Your task to perform on an android device: install app "Booking.com: Hotels and more" Image 0: 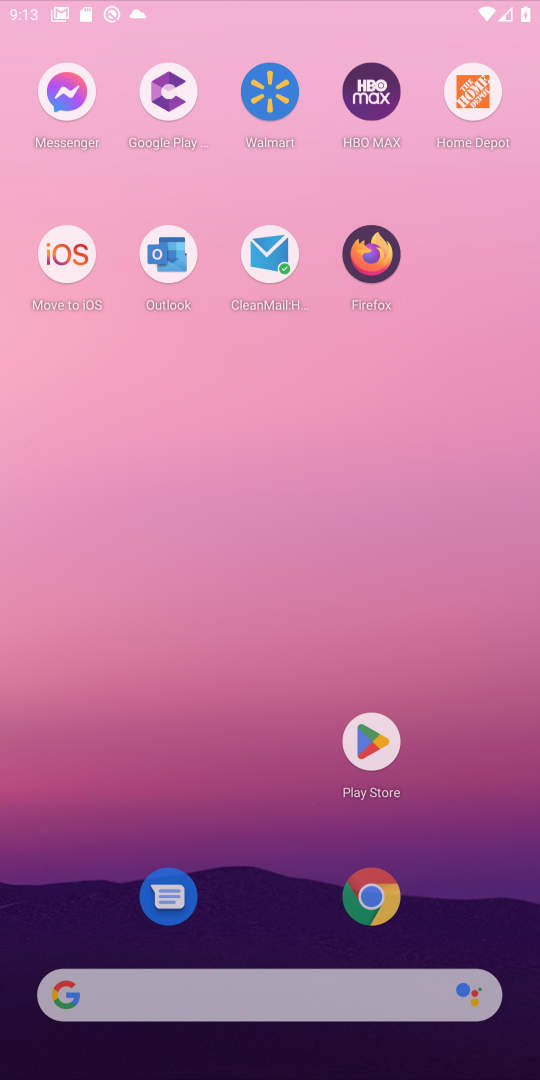
Step 0: press back button
Your task to perform on an android device: install app "Booking.com: Hotels and more" Image 1: 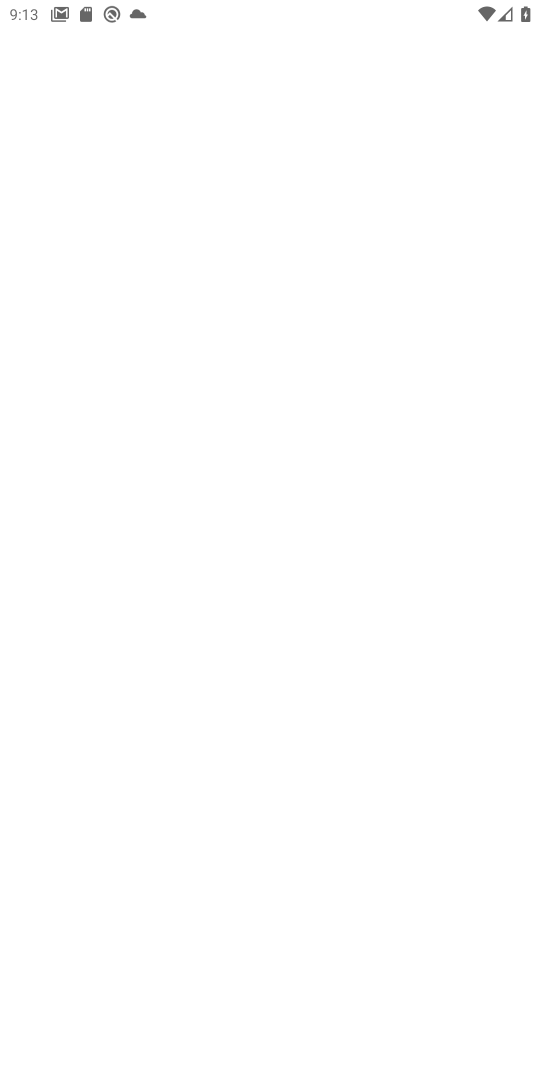
Step 1: press back button
Your task to perform on an android device: install app "Booking.com: Hotels and more" Image 2: 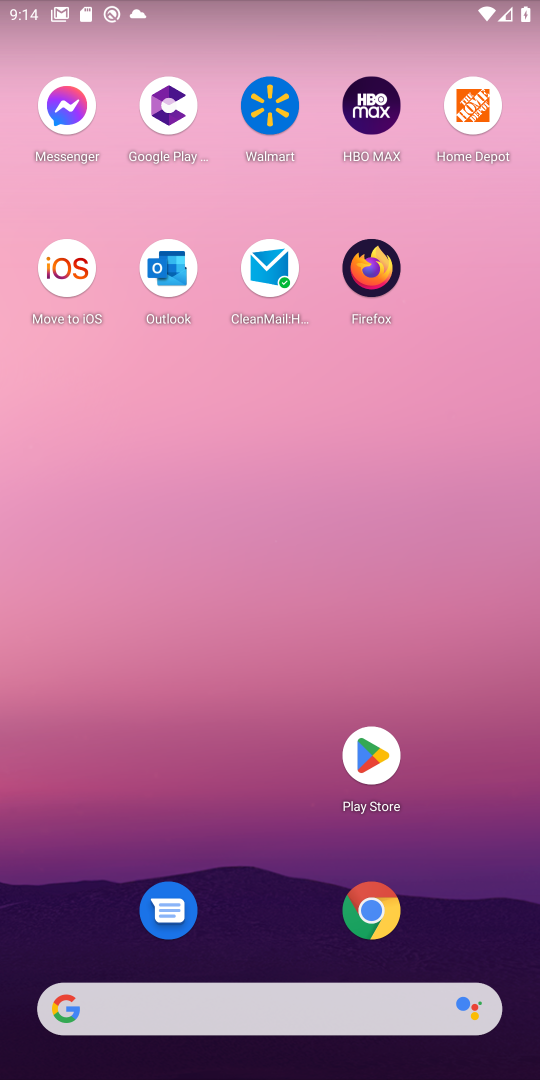
Step 2: drag from (295, 832) to (266, 199)
Your task to perform on an android device: install app "Booking.com: Hotels and more" Image 3: 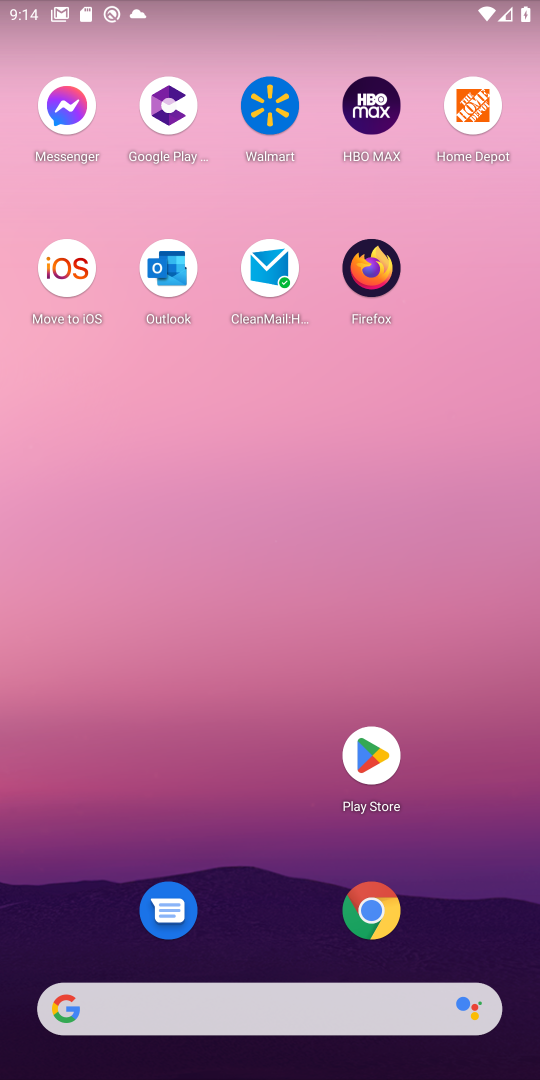
Step 3: drag from (369, 345) to (409, 194)
Your task to perform on an android device: install app "Booking.com: Hotels and more" Image 4: 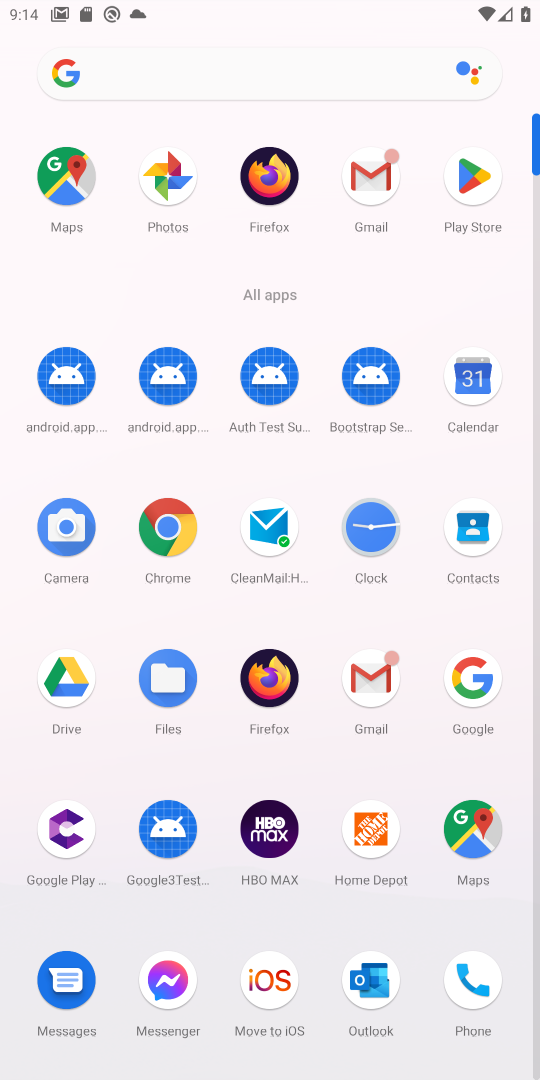
Step 4: drag from (249, 814) to (183, 264)
Your task to perform on an android device: install app "Booking.com: Hotels and more" Image 5: 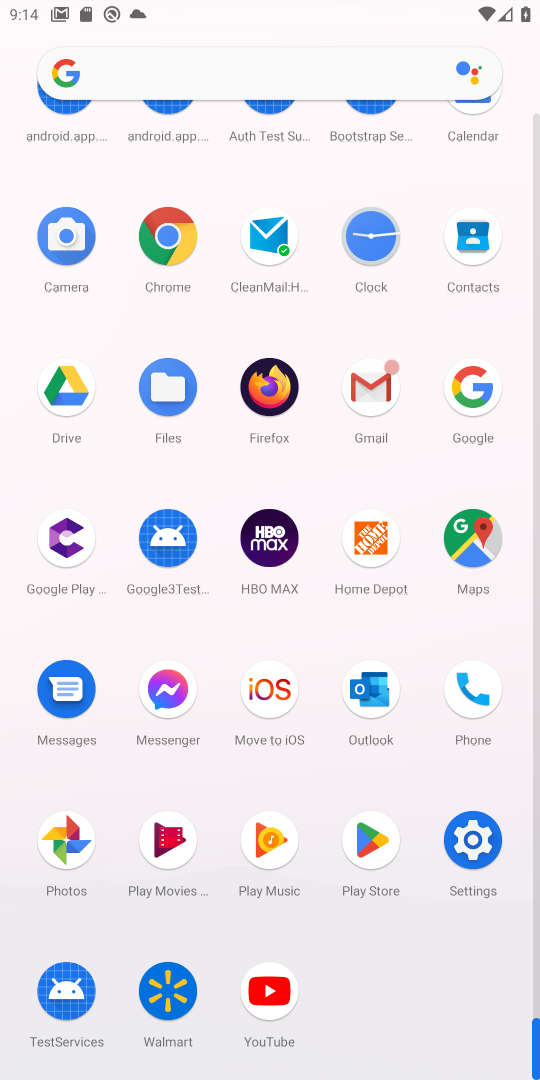
Step 5: drag from (382, 792) to (360, 835)
Your task to perform on an android device: install app "Booking.com: Hotels and more" Image 6: 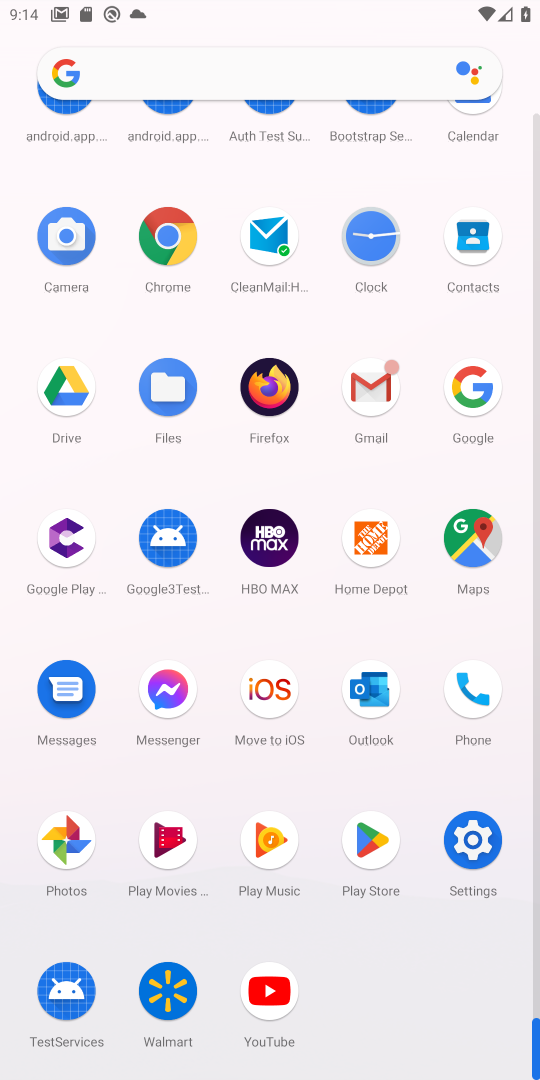
Step 6: click (356, 841)
Your task to perform on an android device: install app "Booking.com: Hotels and more" Image 7: 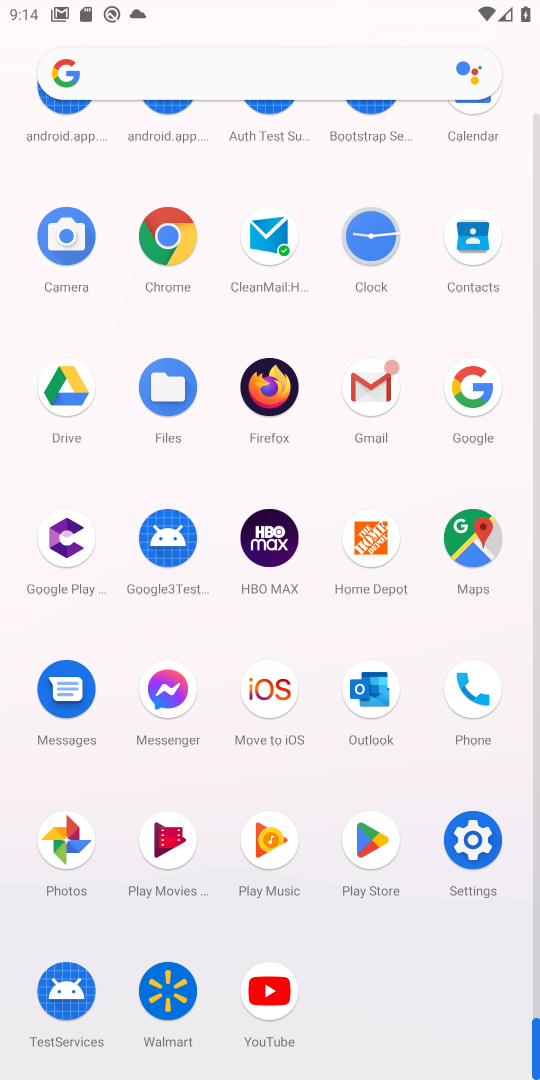
Step 7: click (356, 841)
Your task to perform on an android device: install app "Booking.com: Hotels and more" Image 8: 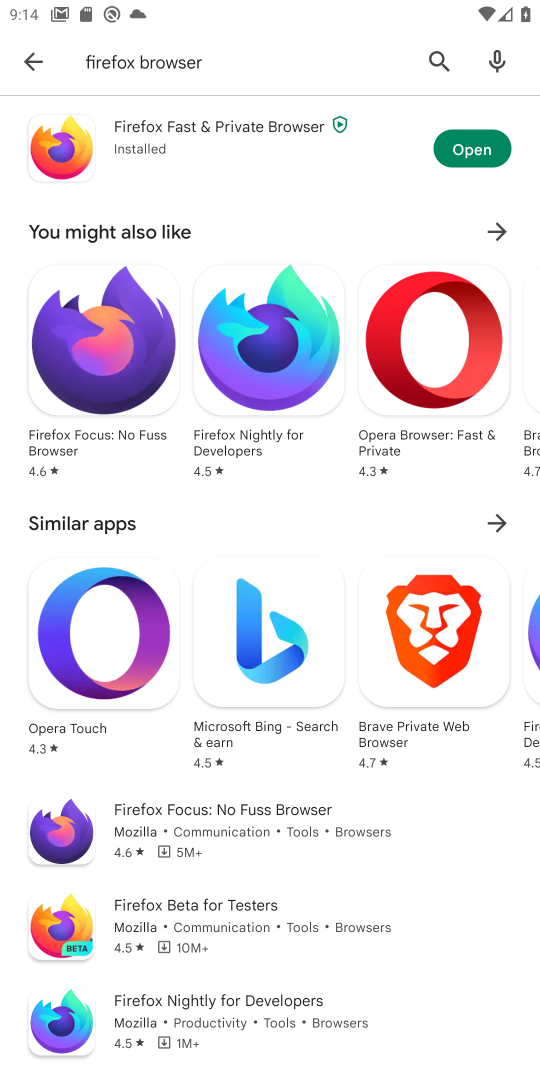
Step 8: press back button
Your task to perform on an android device: install app "Booking.com: Hotels and more" Image 9: 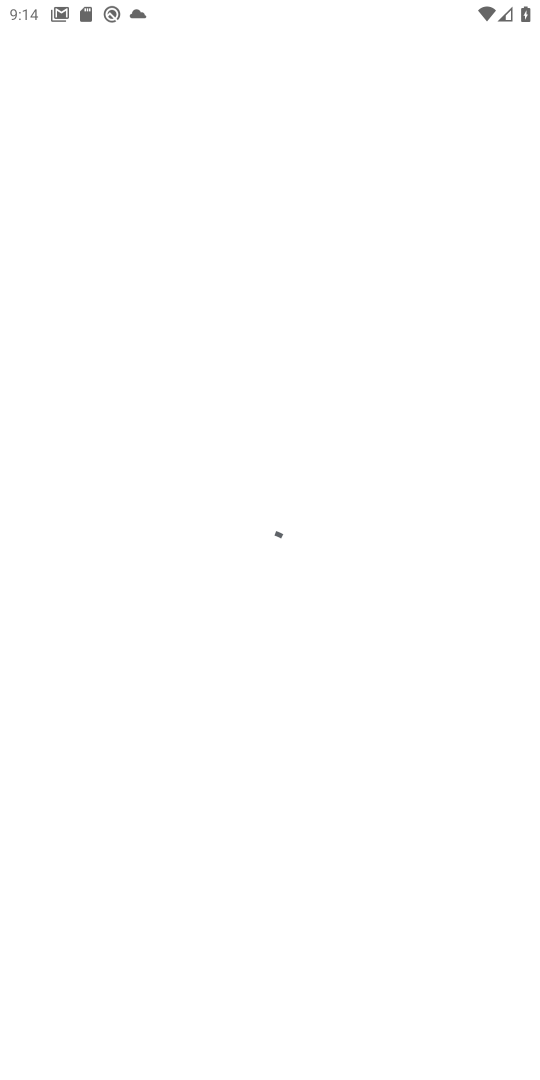
Step 9: press back button
Your task to perform on an android device: install app "Booking.com: Hotels and more" Image 10: 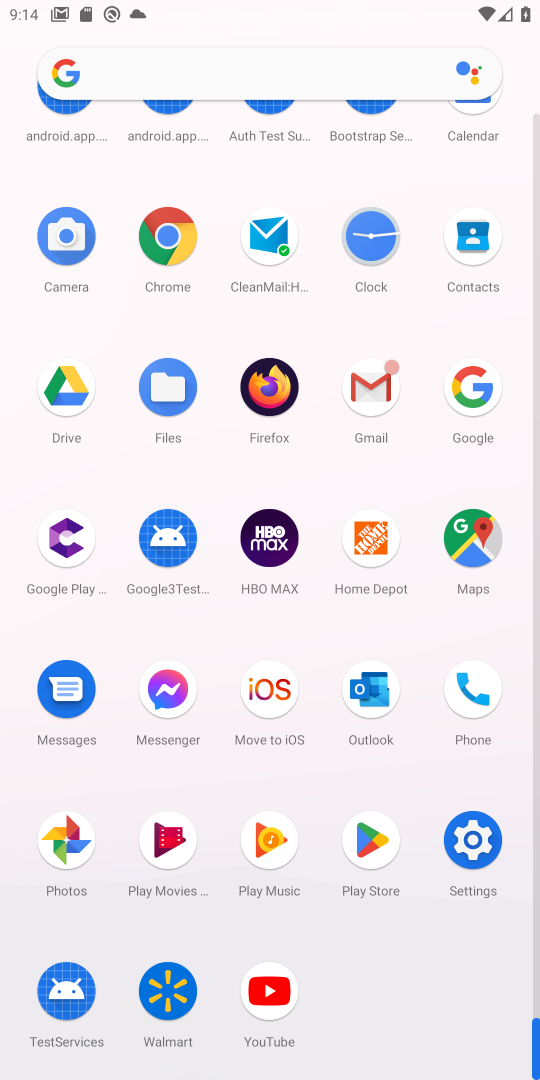
Step 10: click (374, 845)
Your task to perform on an android device: install app "Booking.com: Hotels and more" Image 11: 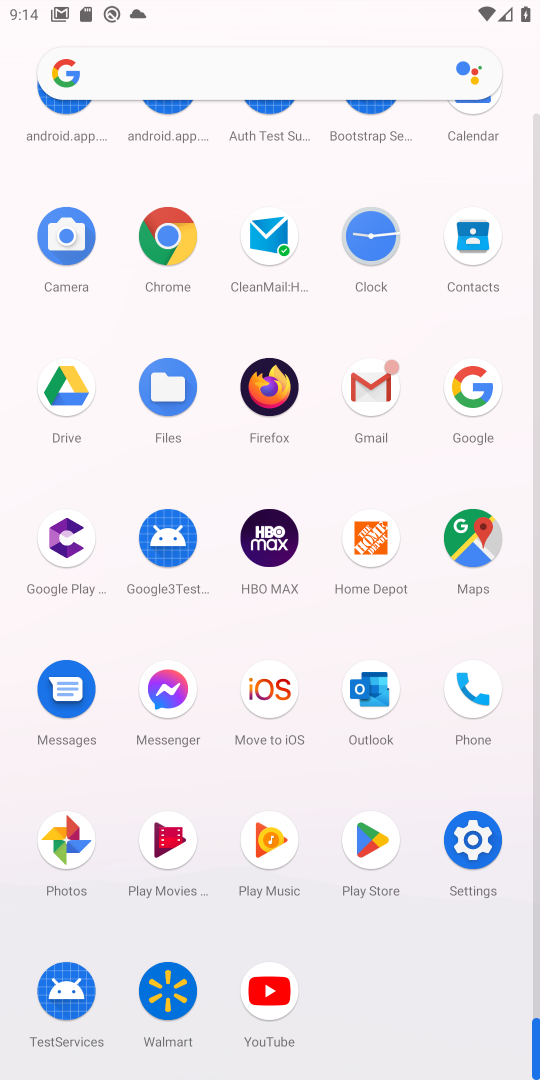
Step 11: click (376, 841)
Your task to perform on an android device: install app "Booking.com: Hotels and more" Image 12: 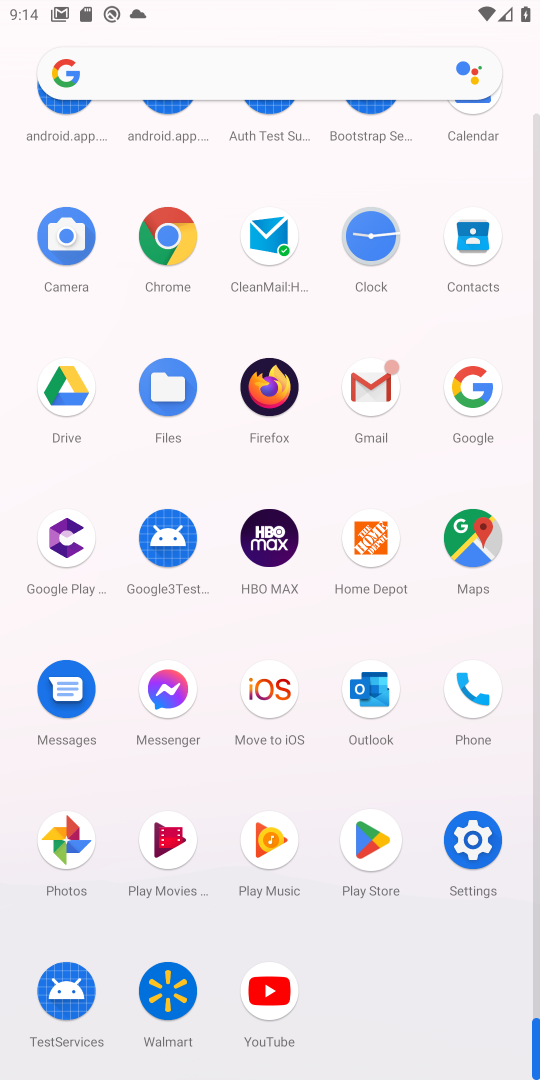
Step 12: click (377, 840)
Your task to perform on an android device: install app "Booking.com: Hotels and more" Image 13: 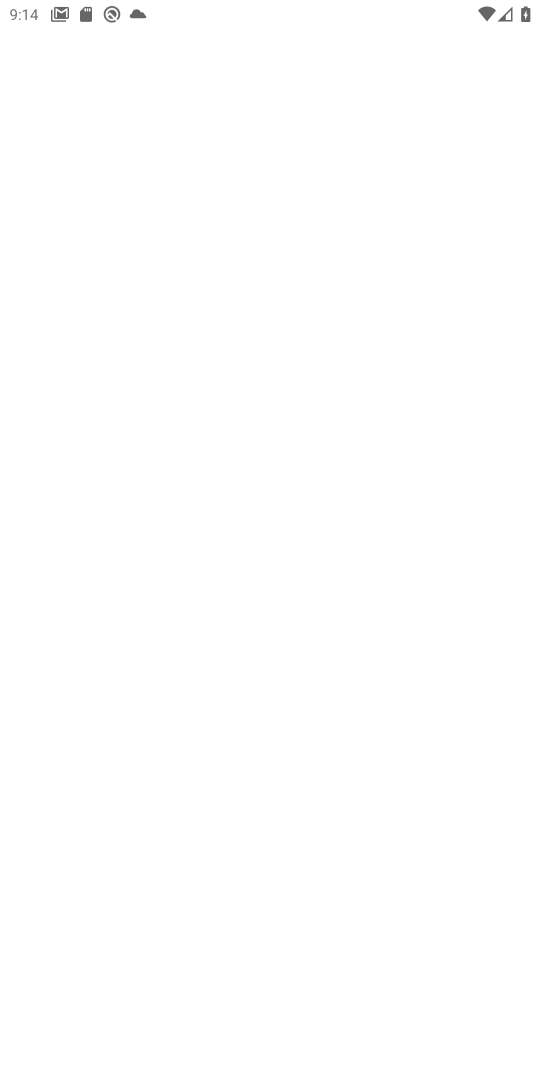
Step 13: click (373, 837)
Your task to perform on an android device: install app "Booking.com: Hotels and more" Image 14: 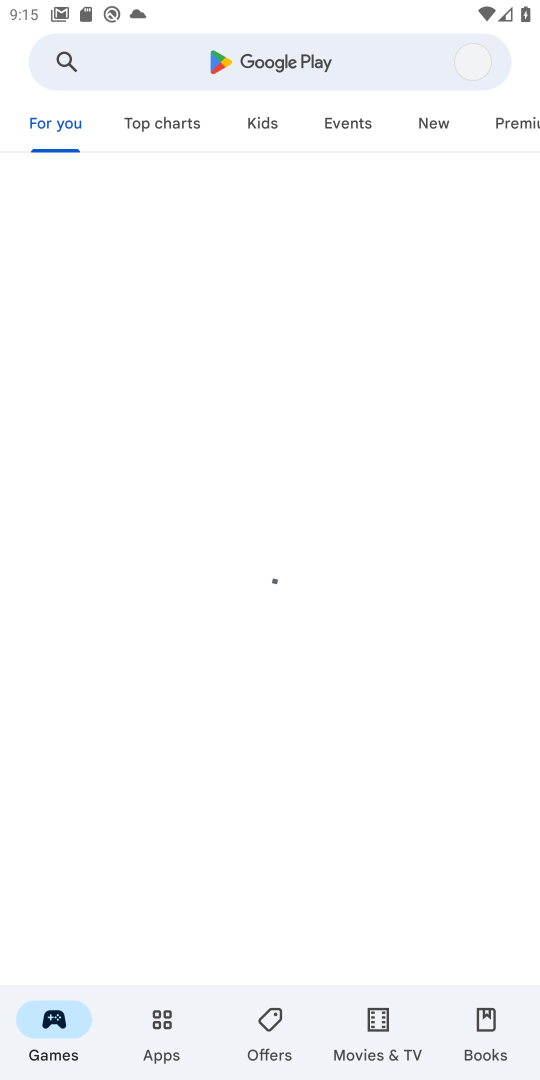
Step 14: click (373, 837)
Your task to perform on an android device: install app "Booking.com: Hotels and more" Image 15: 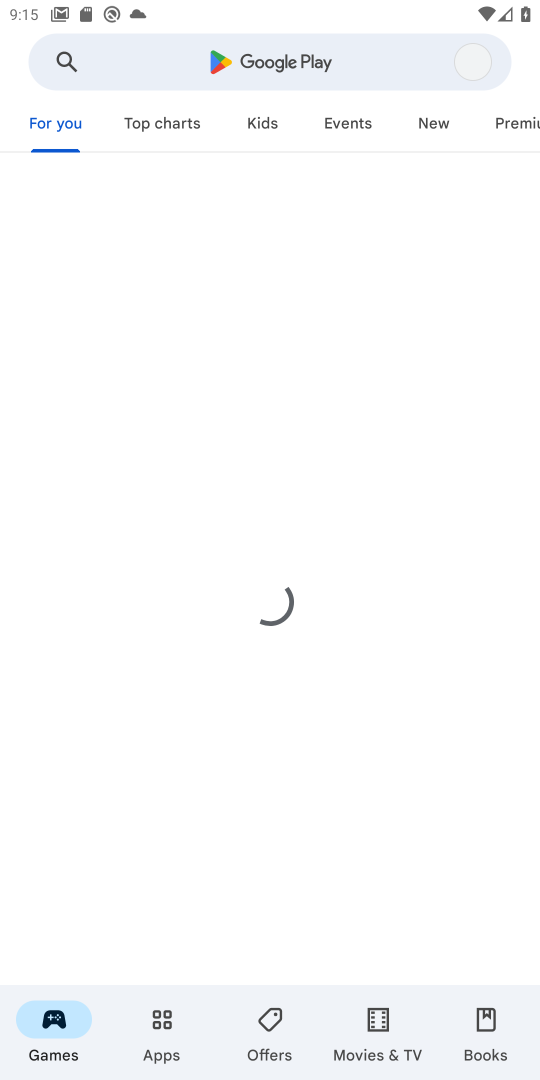
Step 15: click (373, 837)
Your task to perform on an android device: install app "Booking.com: Hotels and more" Image 16: 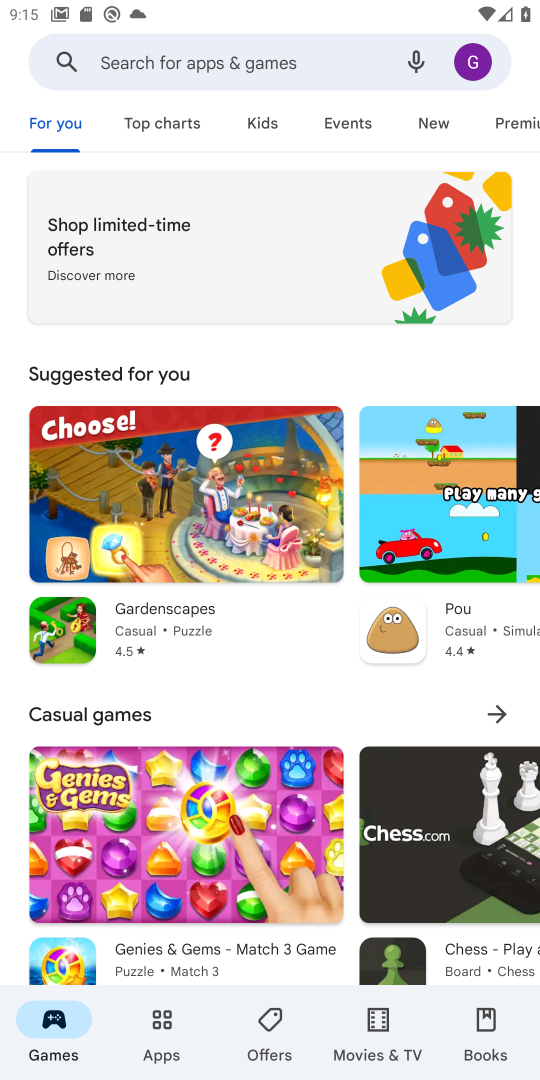
Step 16: click (112, 76)
Your task to perform on an android device: install app "Booking.com: Hotels and more" Image 17: 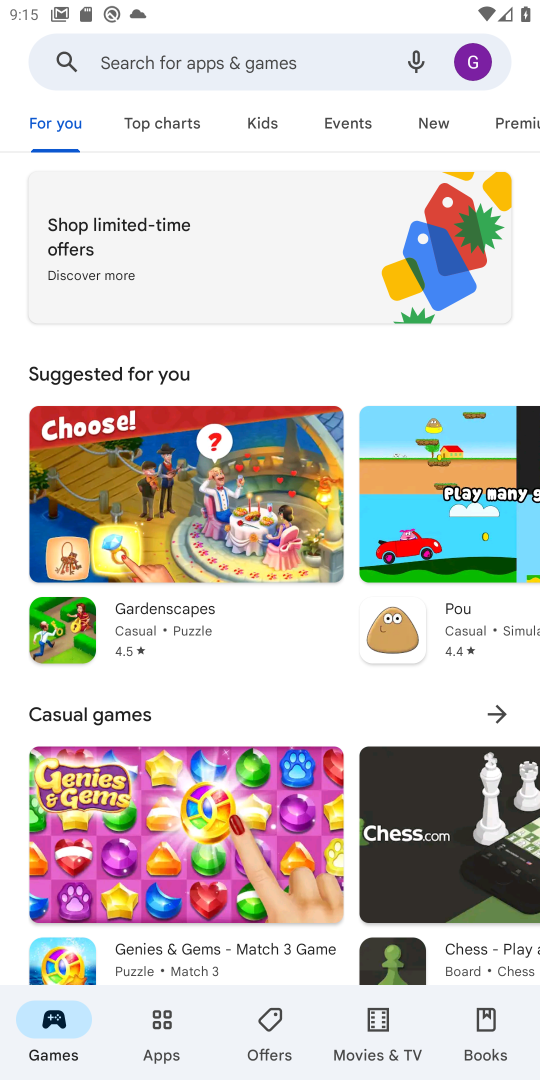
Step 17: click (112, 76)
Your task to perform on an android device: install app "Booking.com: Hotels and more" Image 18: 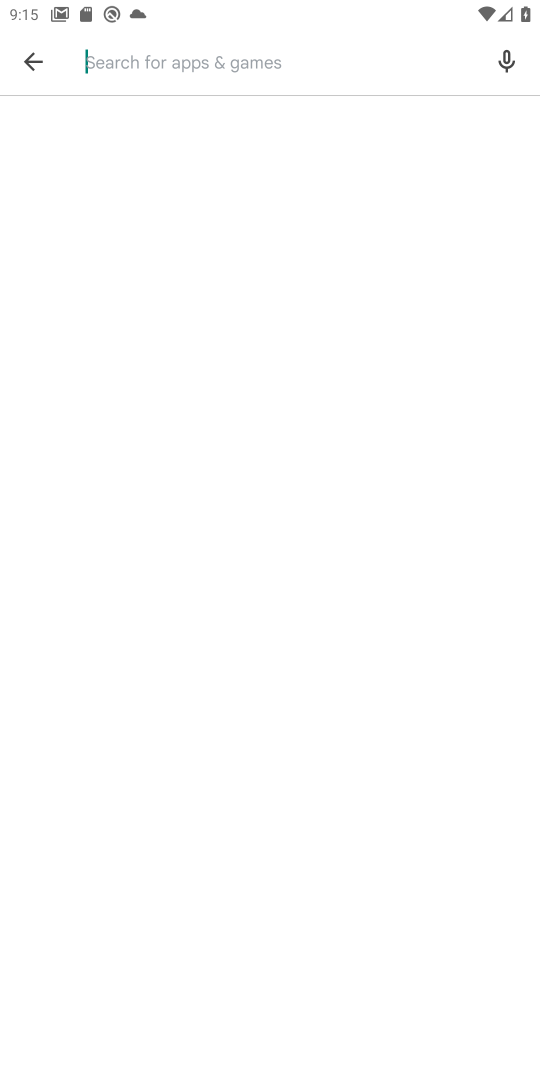
Step 18: click (113, 75)
Your task to perform on an android device: install app "Booking.com: Hotels and more" Image 19: 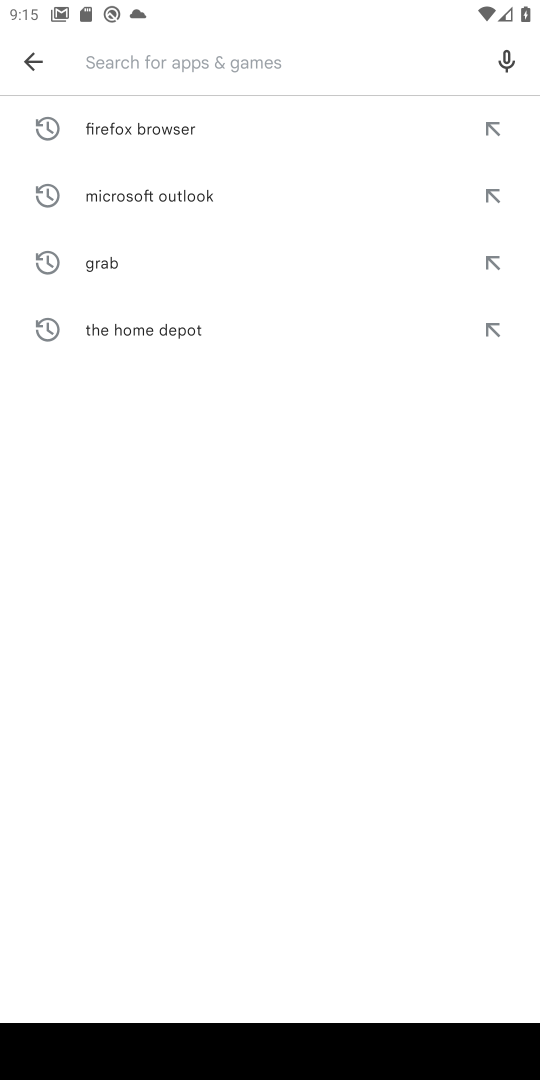
Step 19: type "Booking .com : Hotels and more"
Your task to perform on an android device: install app "Booking.com: Hotels and more" Image 20: 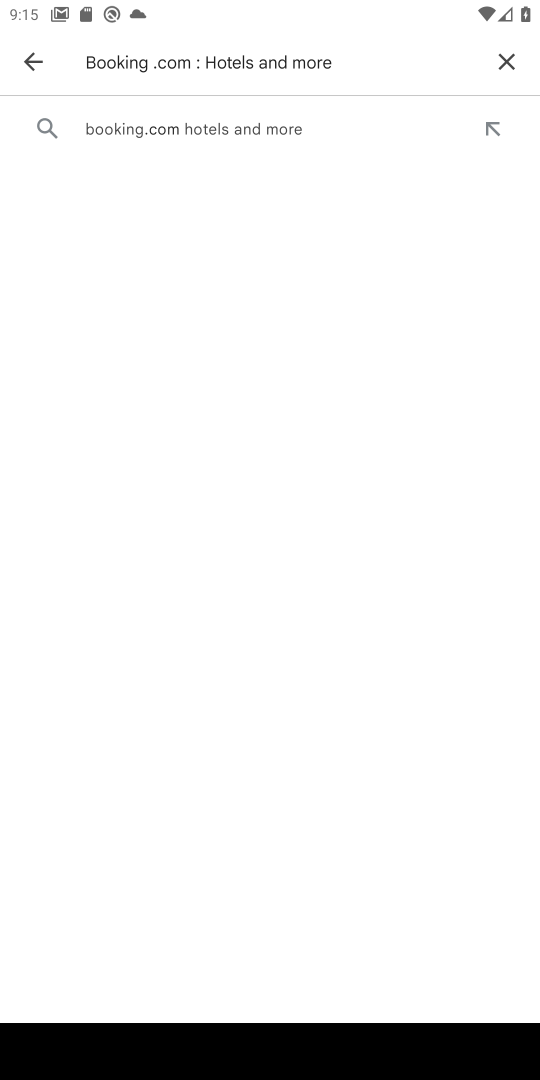
Step 20: click (171, 138)
Your task to perform on an android device: install app "Booking.com: Hotels and more" Image 21: 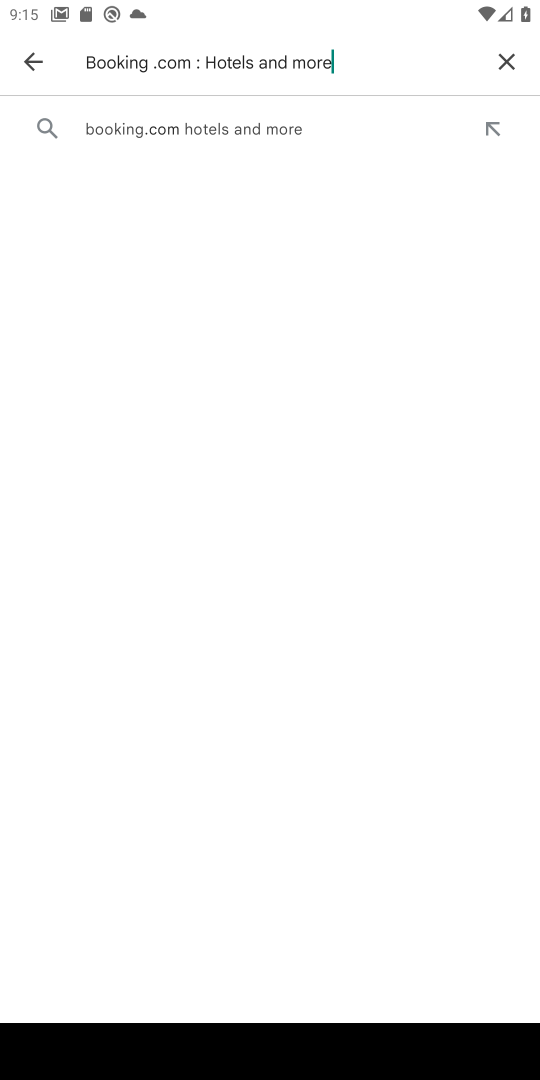
Step 21: click (174, 138)
Your task to perform on an android device: install app "Booking.com: Hotels and more" Image 22: 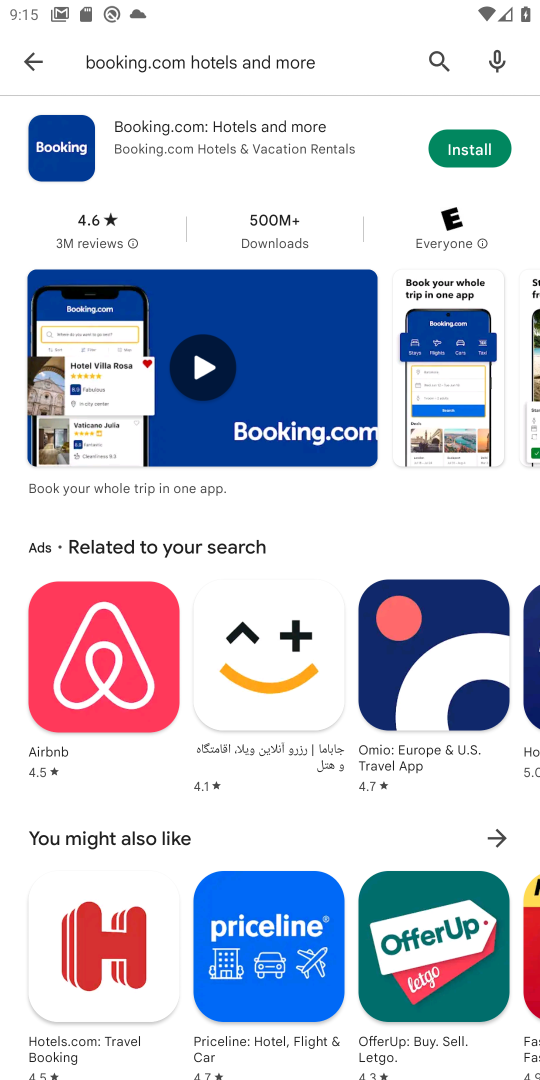
Step 22: click (458, 148)
Your task to perform on an android device: install app "Booking.com: Hotels and more" Image 23: 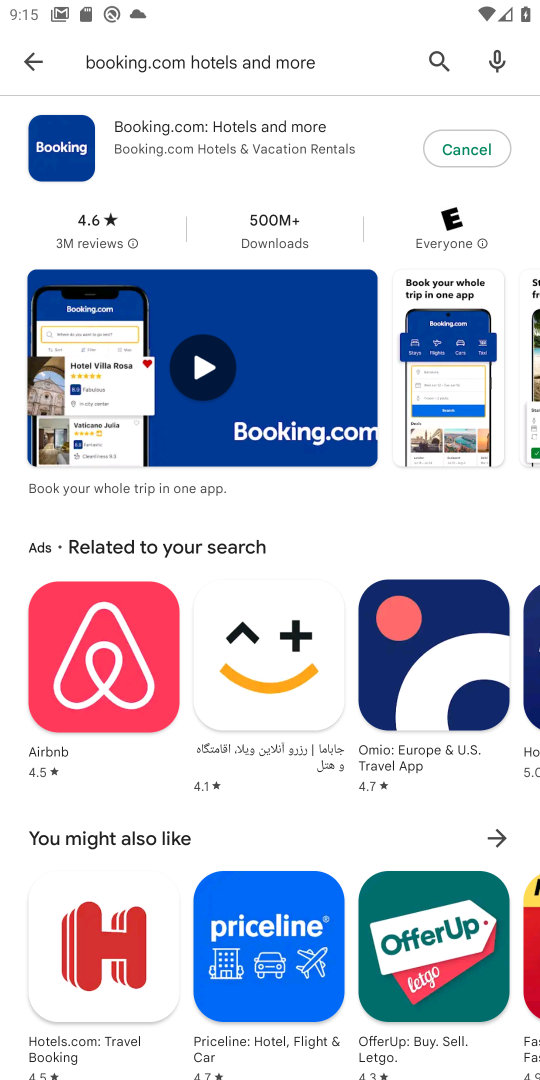
Step 23: click (458, 148)
Your task to perform on an android device: install app "Booking.com: Hotels and more" Image 24: 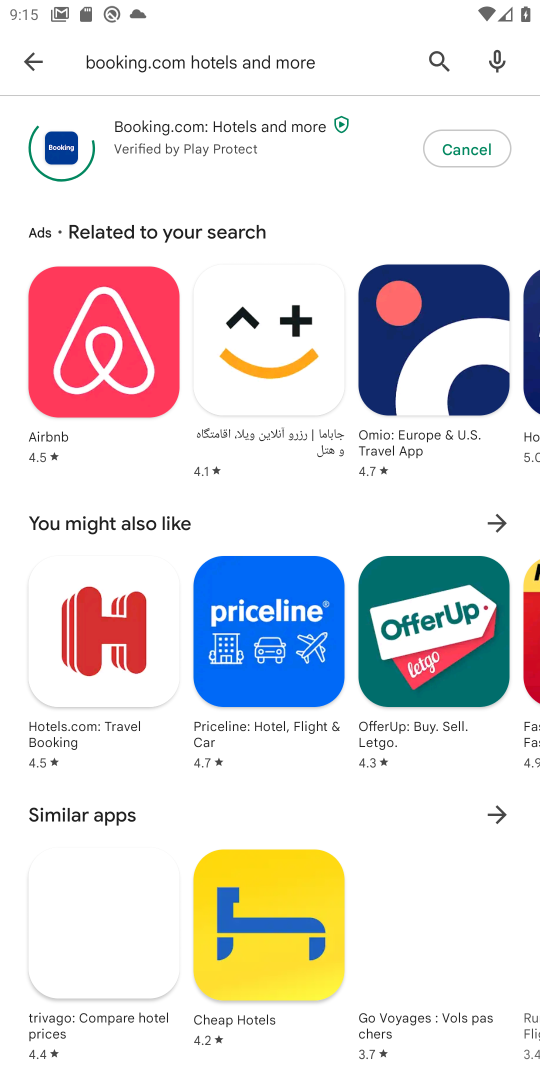
Step 24: click (458, 148)
Your task to perform on an android device: install app "Booking.com: Hotels and more" Image 25: 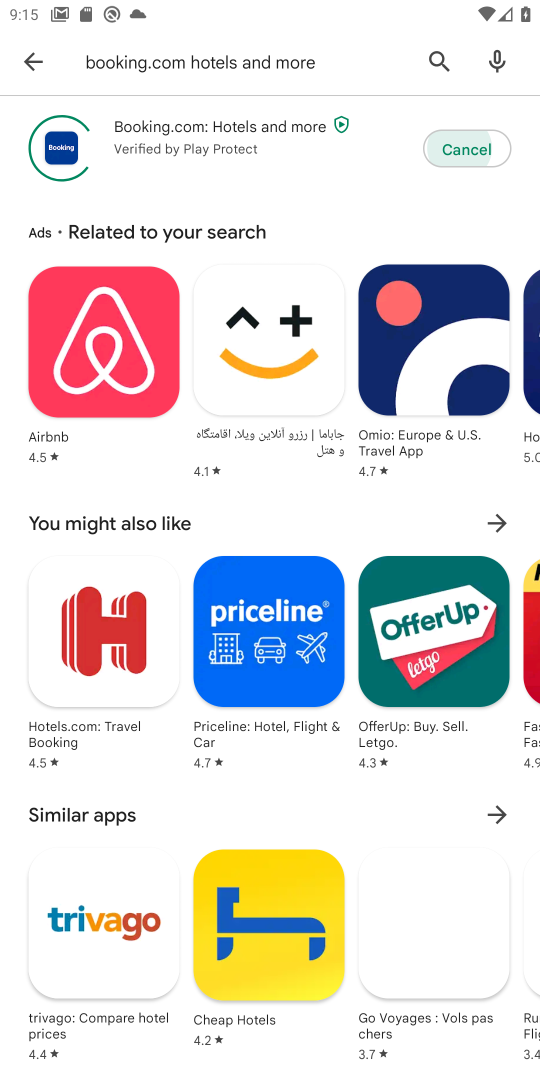
Step 25: click (459, 146)
Your task to perform on an android device: install app "Booking.com: Hotels and more" Image 26: 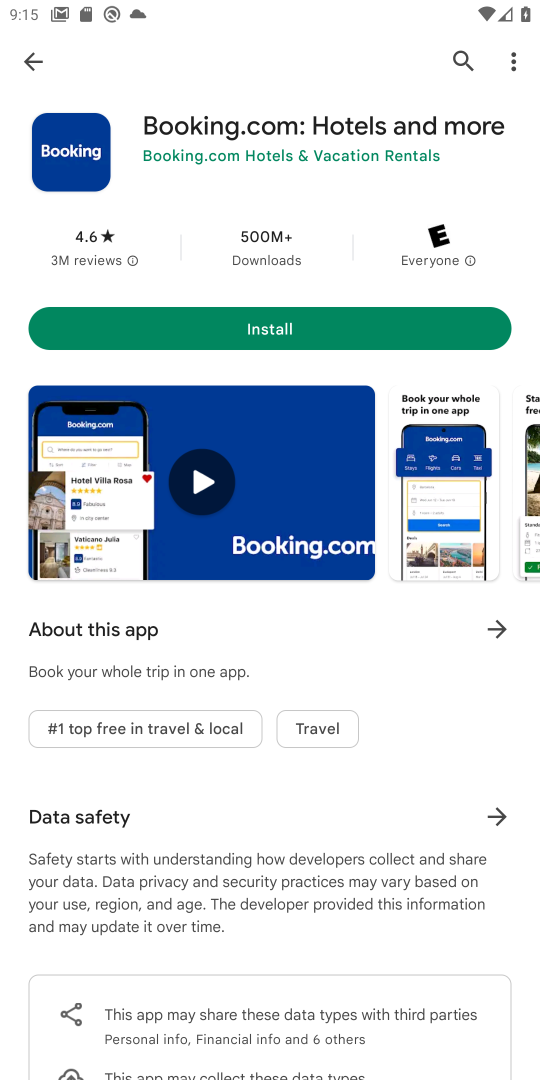
Step 26: click (358, 318)
Your task to perform on an android device: install app "Booking.com: Hotels and more" Image 27: 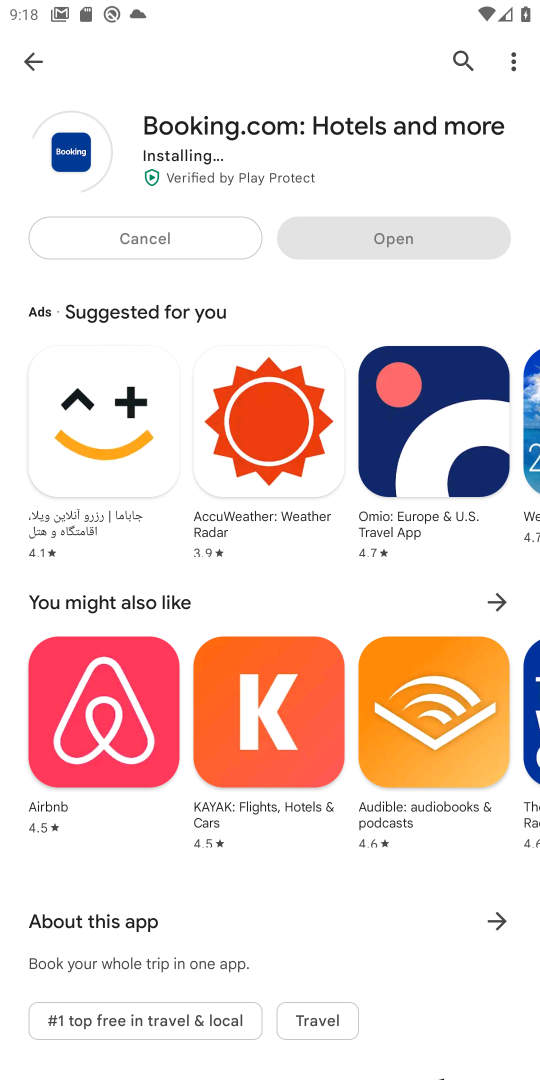
Step 27: click (379, 247)
Your task to perform on an android device: install app "Booking.com: Hotels and more" Image 28: 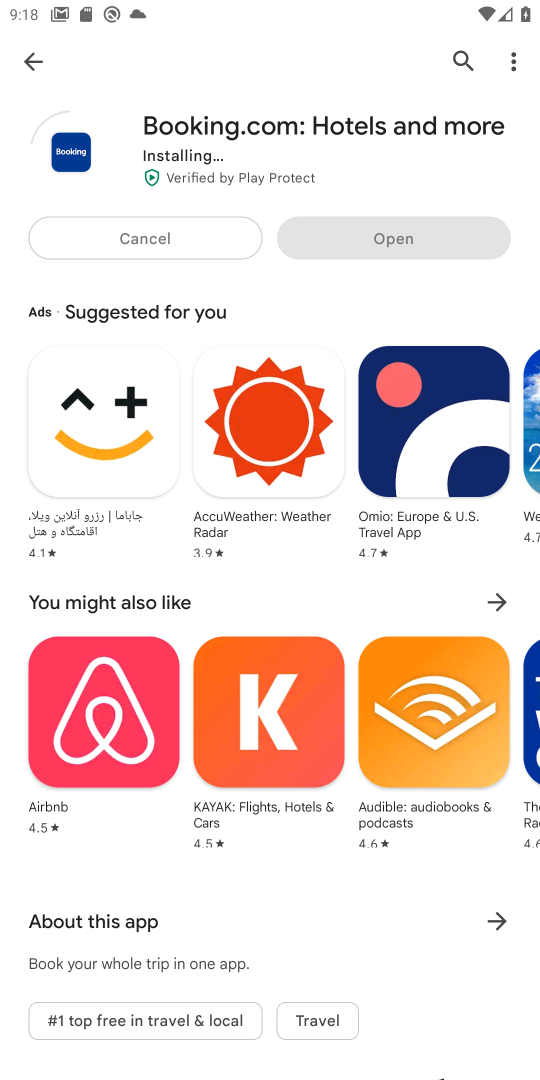
Step 28: click (380, 244)
Your task to perform on an android device: install app "Booking.com: Hotels and more" Image 29: 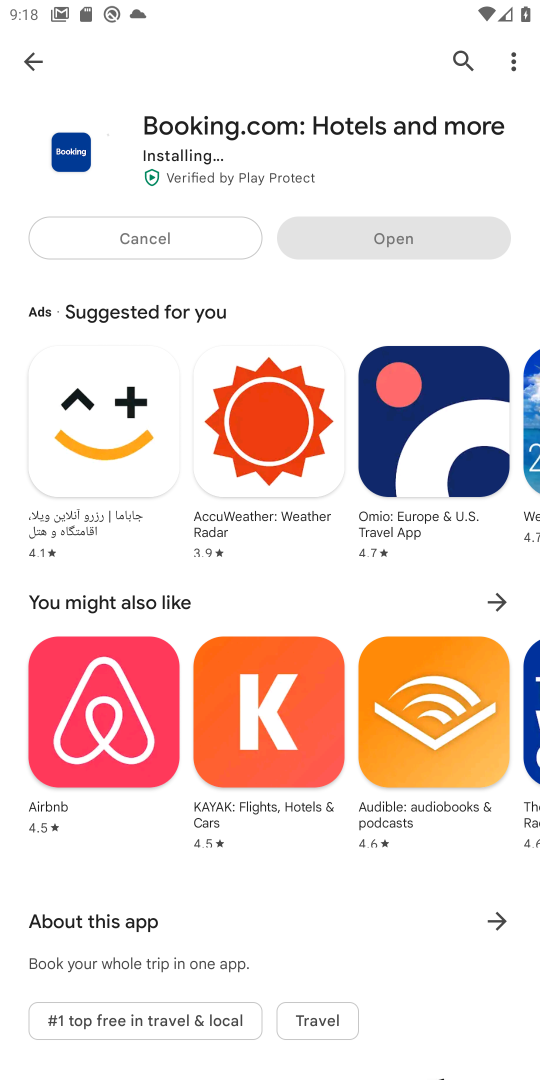
Step 29: click (383, 241)
Your task to perform on an android device: install app "Booking.com: Hotels and more" Image 30: 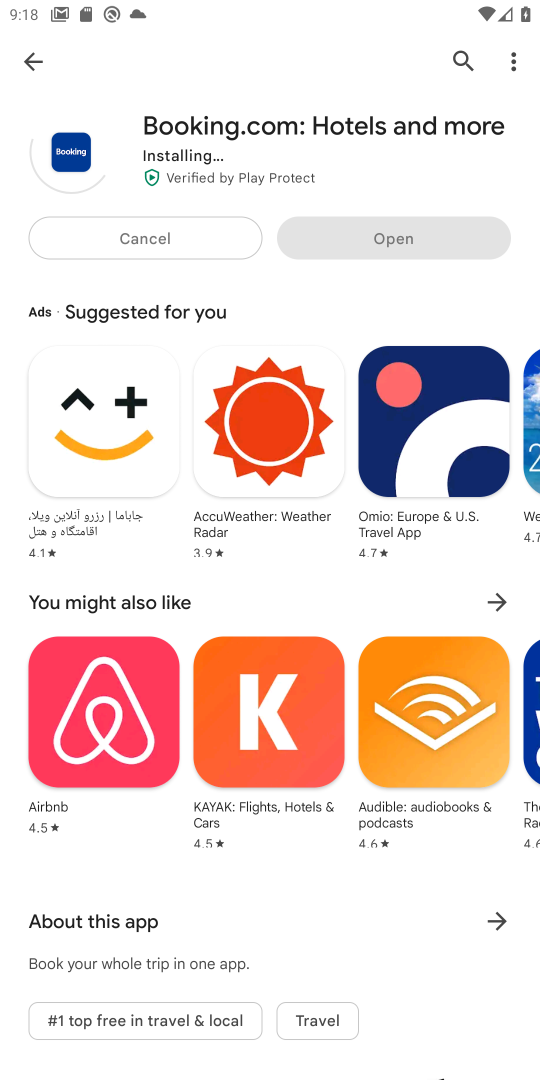
Step 30: click (383, 241)
Your task to perform on an android device: install app "Booking.com: Hotels and more" Image 31: 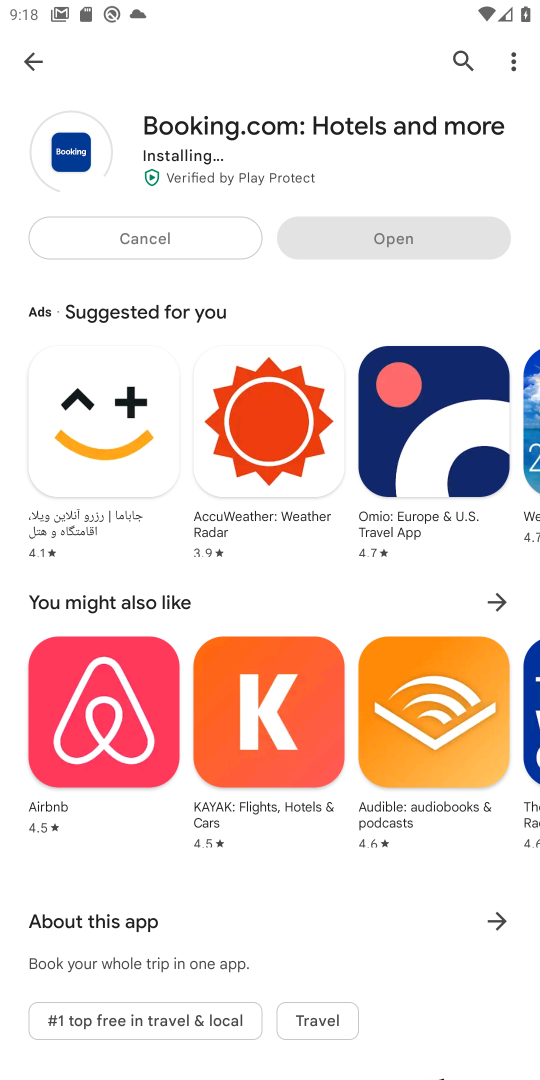
Step 31: click (388, 240)
Your task to perform on an android device: install app "Booking.com: Hotels and more" Image 32: 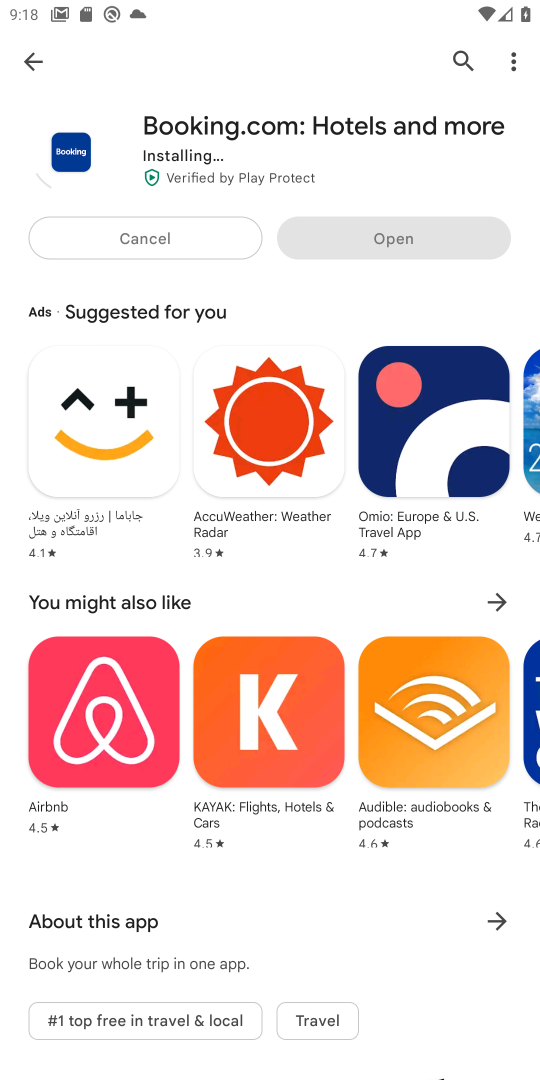
Step 32: click (398, 240)
Your task to perform on an android device: install app "Booking.com: Hotels and more" Image 33: 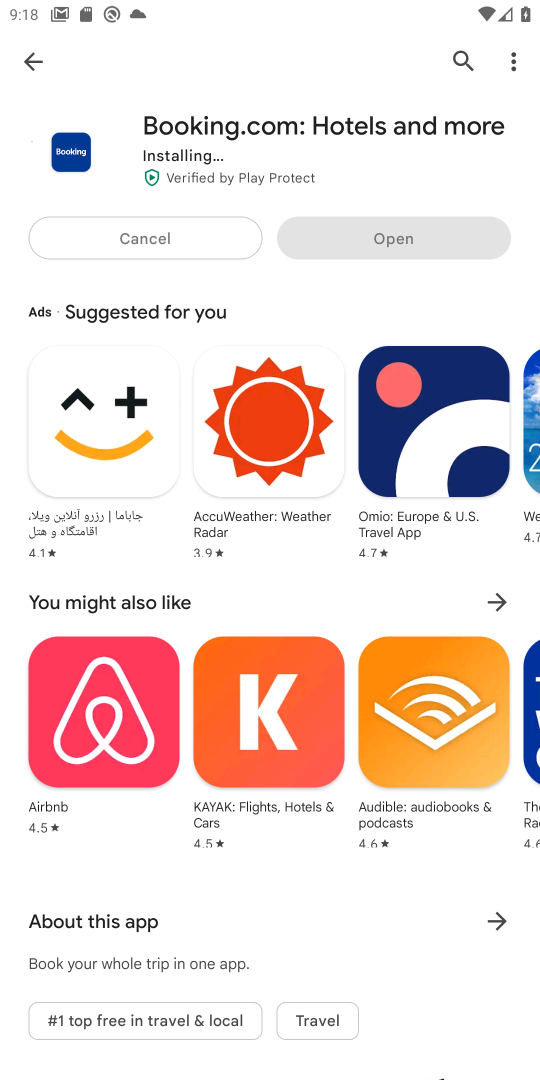
Step 33: click (420, 254)
Your task to perform on an android device: install app "Booking.com: Hotels and more" Image 34: 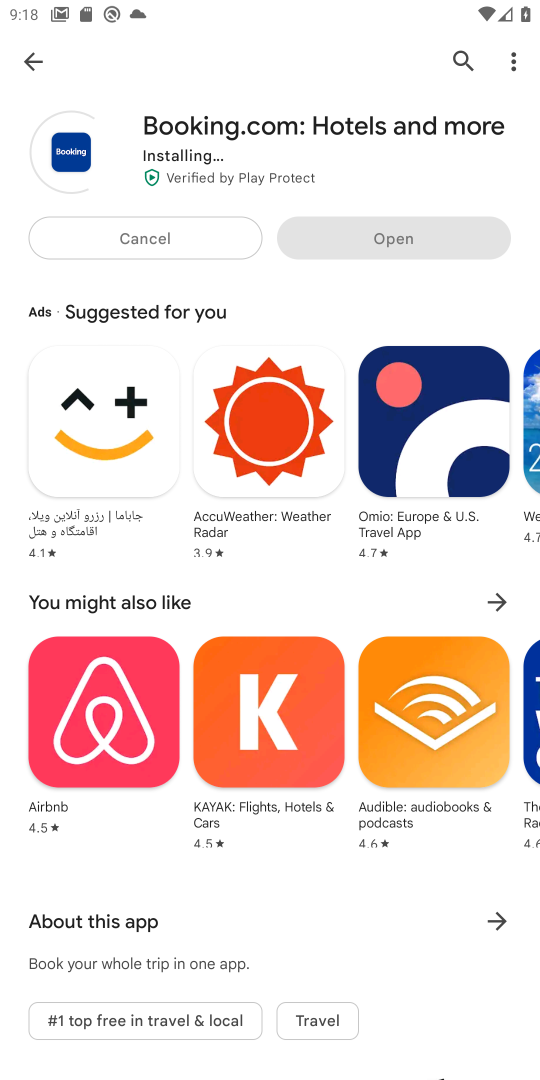
Step 34: click (415, 231)
Your task to perform on an android device: install app "Booking.com: Hotels and more" Image 35: 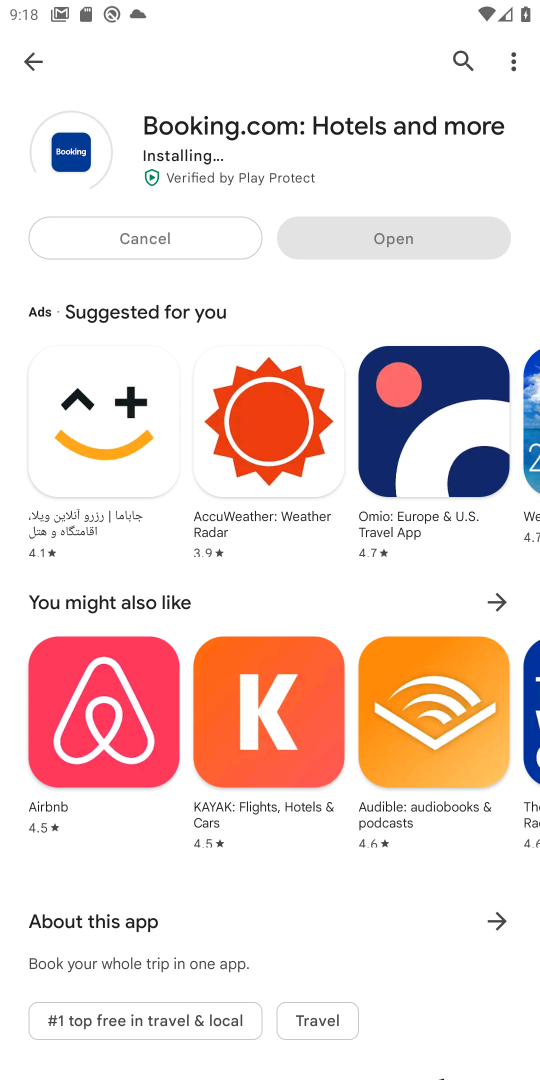
Step 35: click (412, 233)
Your task to perform on an android device: install app "Booking.com: Hotels and more" Image 36: 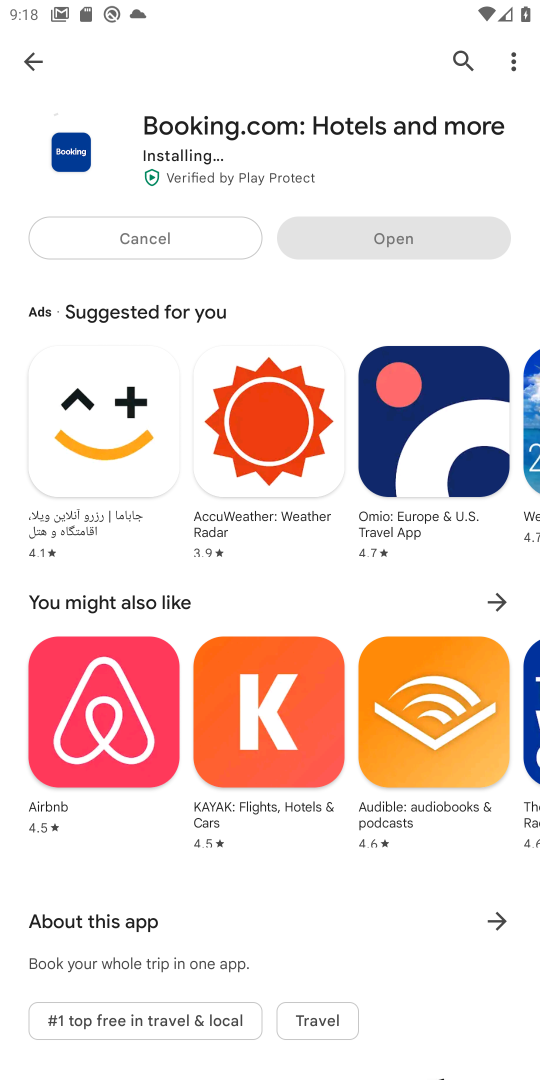
Step 36: click (415, 238)
Your task to perform on an android device: install app "Booking.com: Hotels and more" Image 37: 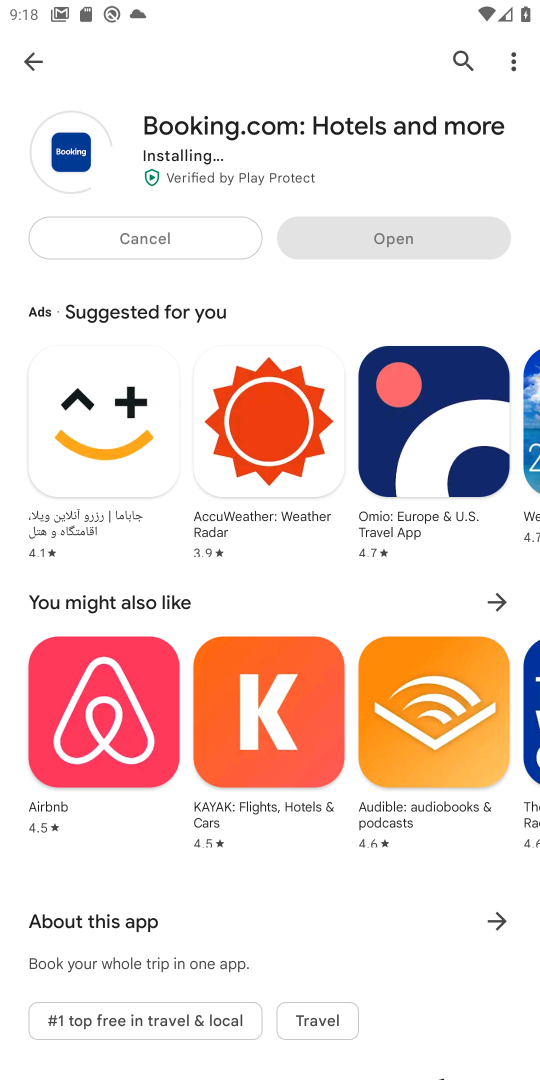
Step 37: click (418, 237)
Your task to perform on an android device: install app "Booking.com: Hotels and more" Image 38: 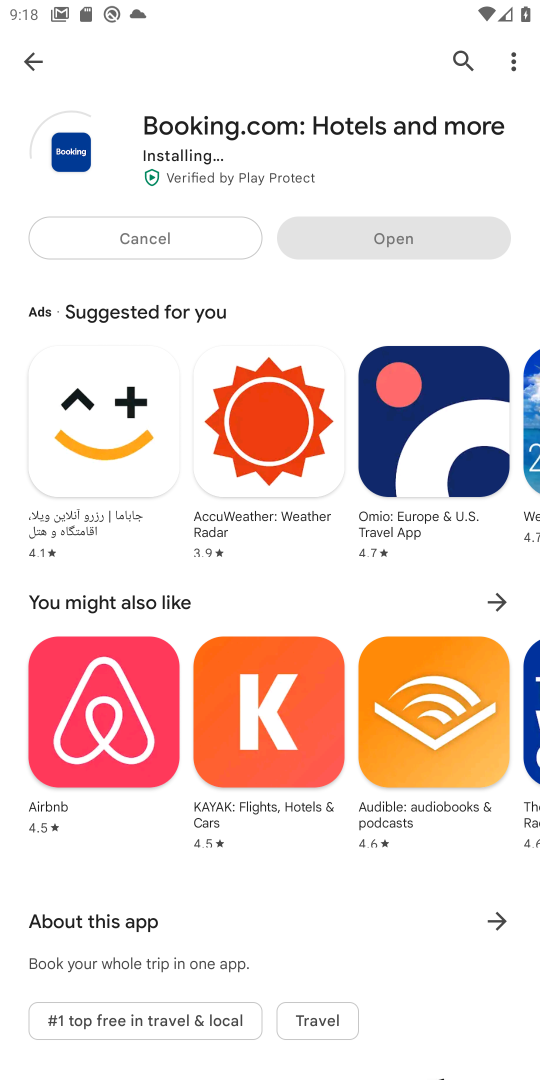
Step 38: click (439, 250)
Your task to perform on an android device: install app "Booking.com: Hotels and more" Image 39: 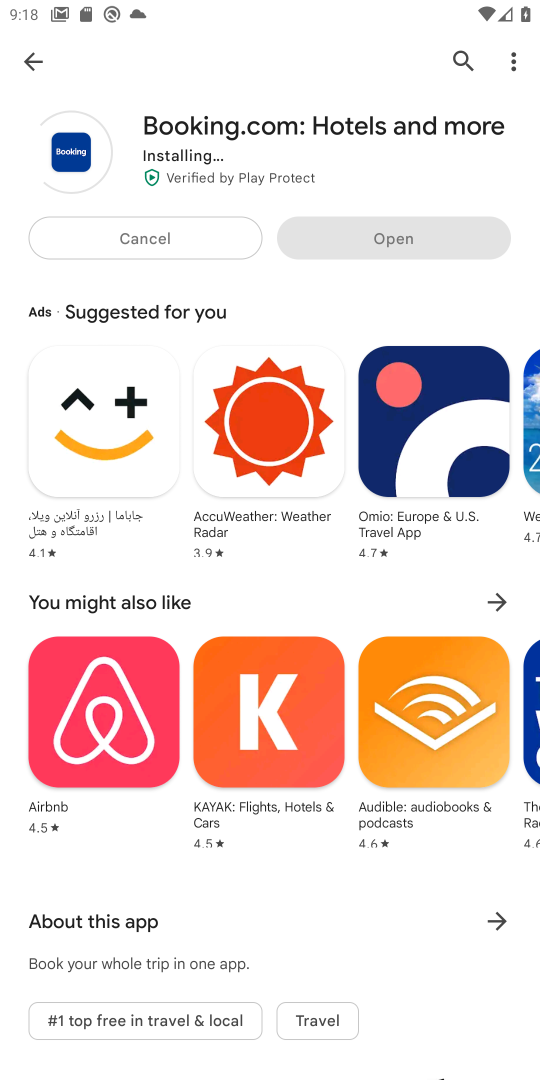
Step 39: click (439, 250)
Your task to perform on an android device: install app "Booking.com: Hotels and more" Image 40: 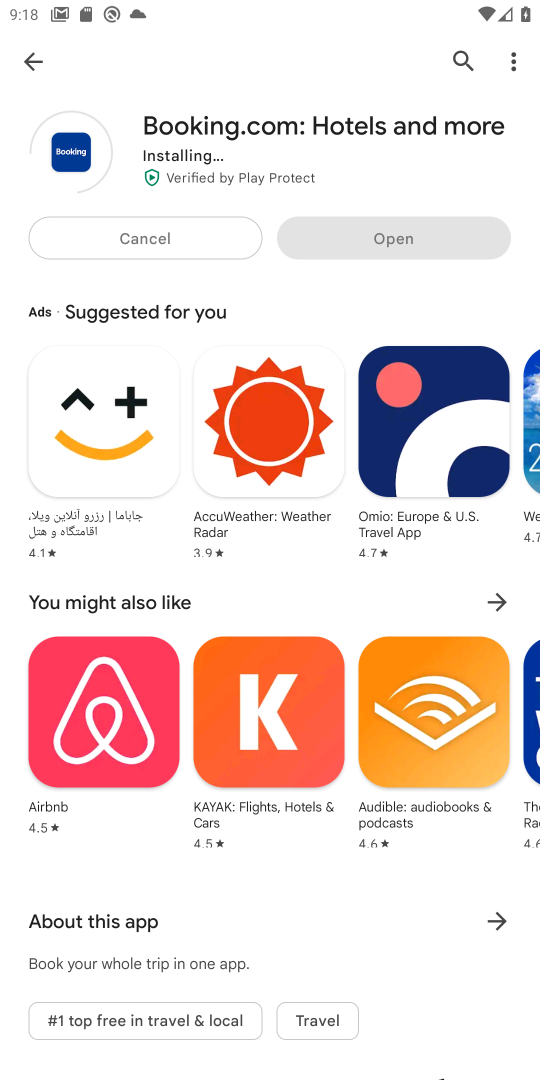
Step 40: click (412, 234)
Your task to perform on an android device: install app "Booking.com: Hotels and more" Image 41: 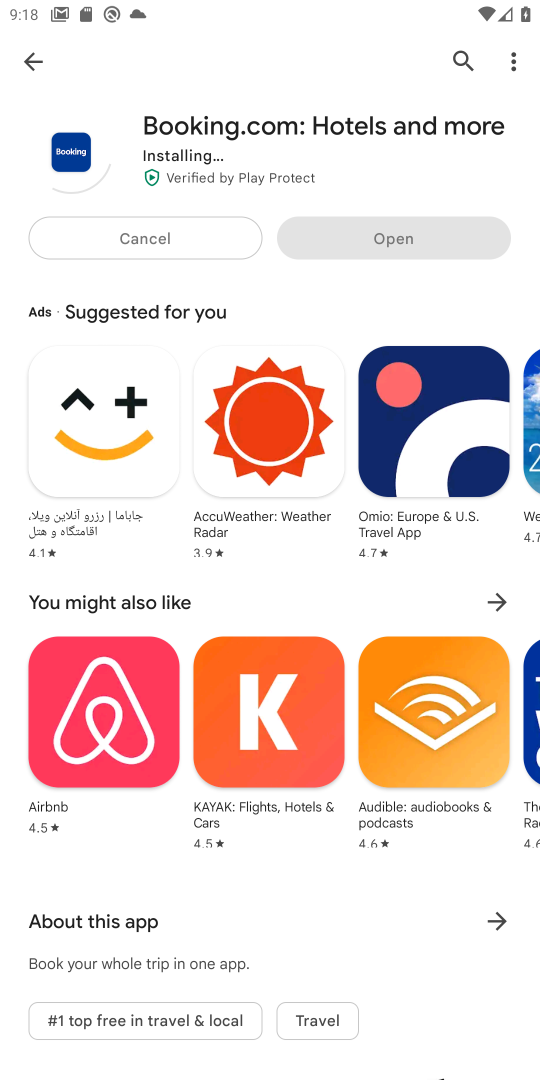
Step 41: click (412, 234)
Your task to perform on an android device: install app "Booking.com: Hotels and more" Image 42: 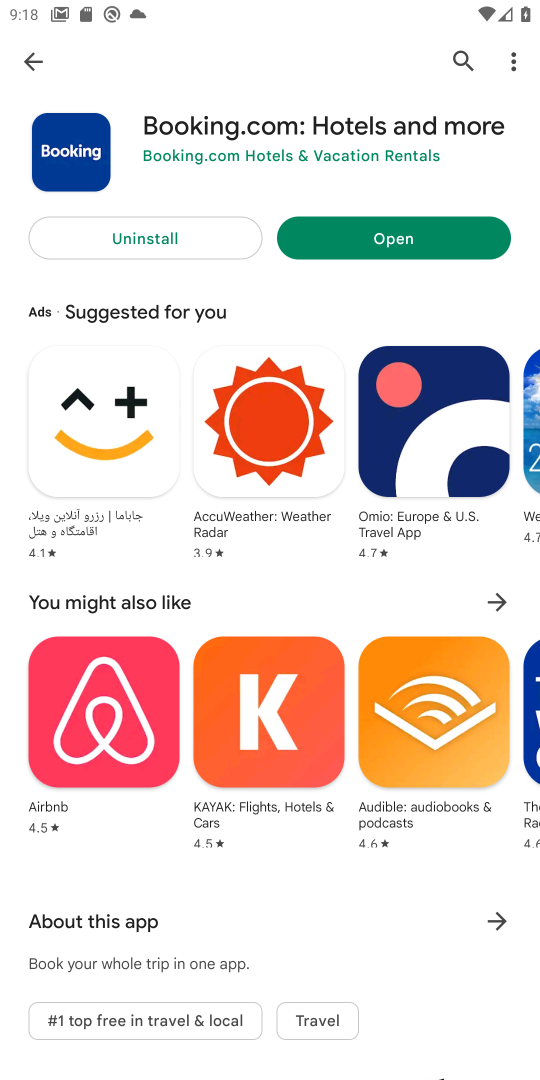
Step 42: click (409, 231)
Your task to perform on an android device: install app "Booking.com: Hotels and more" Image 43: 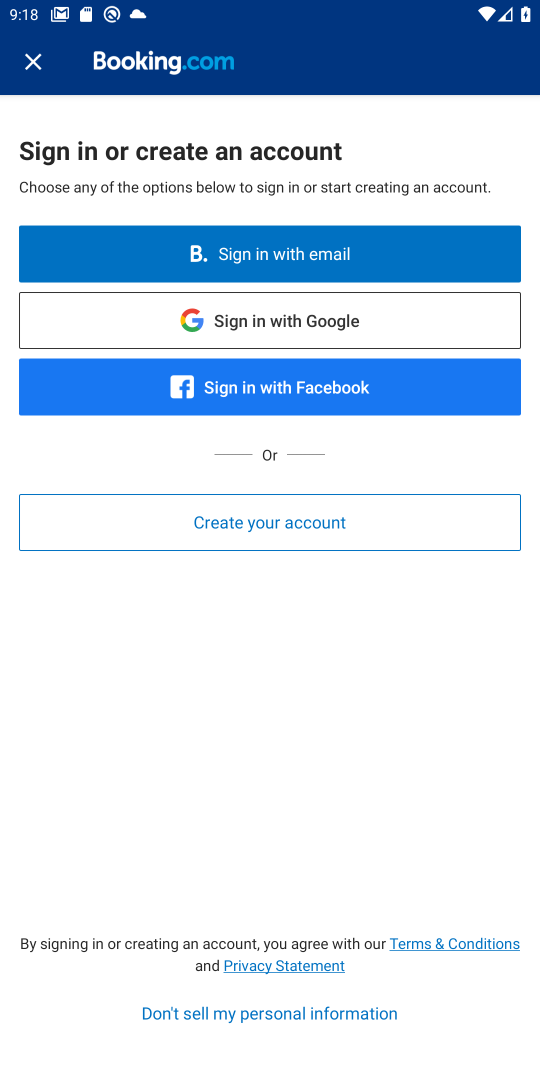
Step 43: task complete